Your task to perform on an android device: change the clock display to digital Image 0: 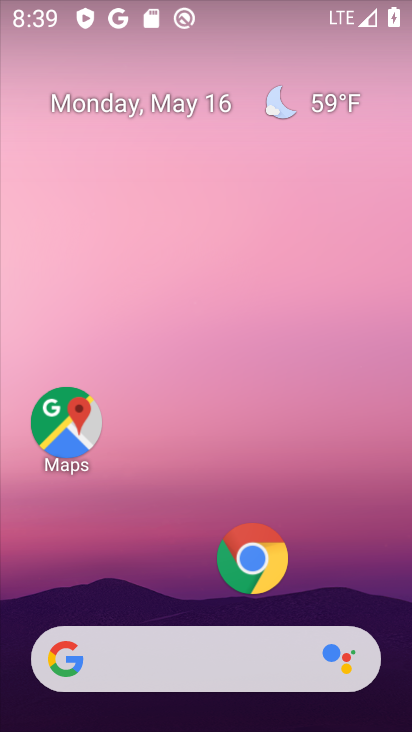
Step 0: drag from (158, 578) to (268, 44)
Your task to perform on an android device: change the clock display to digital Image 1: 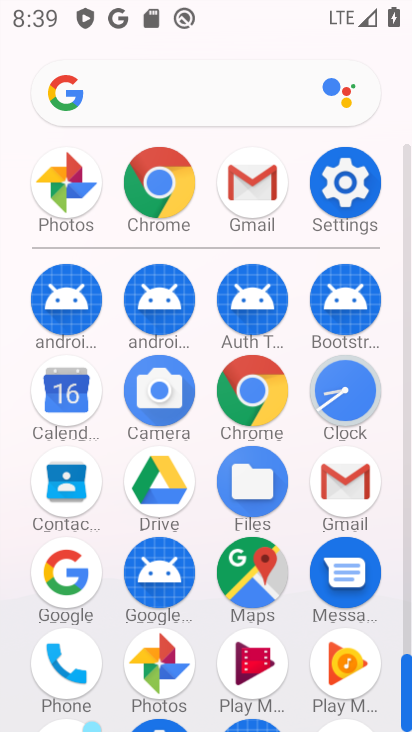
Step 1: click (360, 385)
Your task to perform on an android device: change the clock display to digital Image 2: 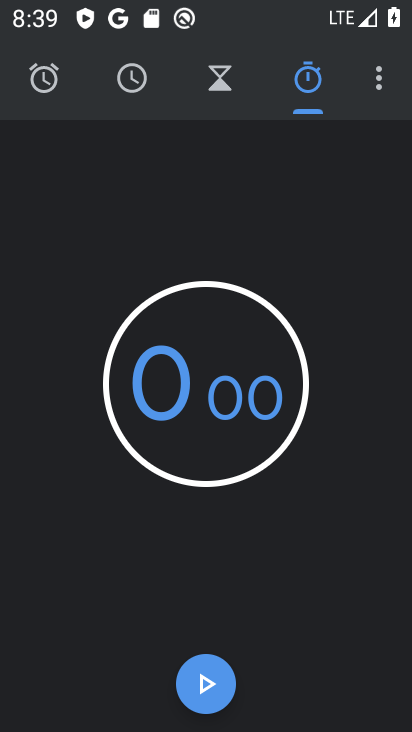
Step 2: click (371, 79)
Your task to perform on an android device: change the clock display to digital Image 3: 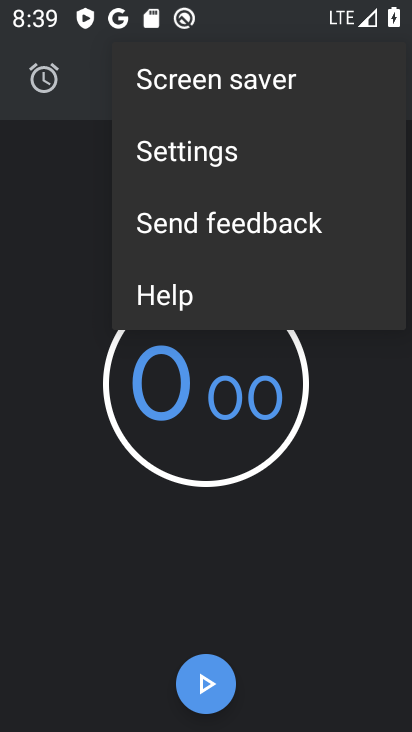
Step 3: click (272, 132)
Your task to perform on an android device: change the clock display to digital Image 4: 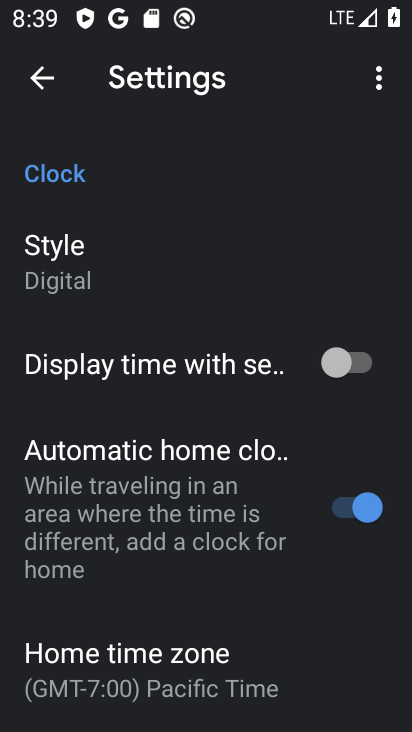
Step 4: task complete